Your task to perform on an android device: see tabs open on other devices in the chrome app Image 0: 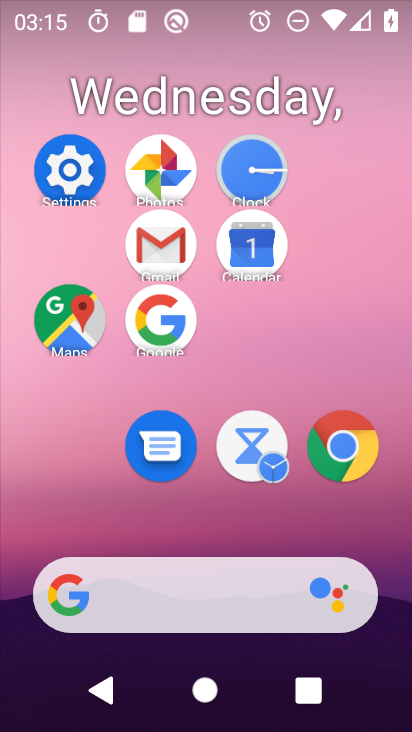
Step 0: click (352, 430)
Your task to perform on an android device: see tabs open on other devices in the chrome app Image 1: 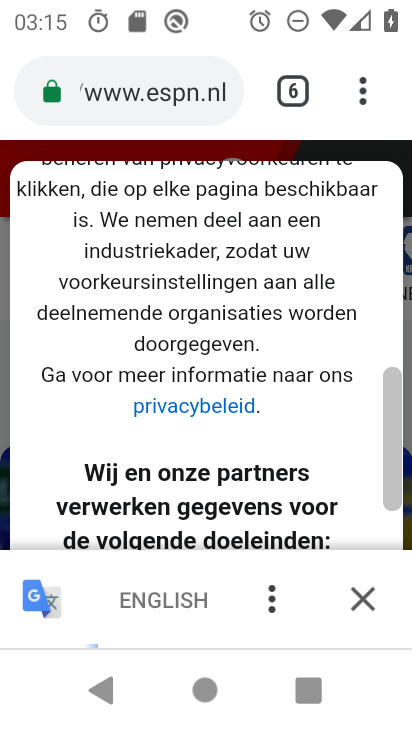
Step 1: click (378, 81)
Your task to perform on an android device: see tabs open on other devices in the chrome app Image 2: 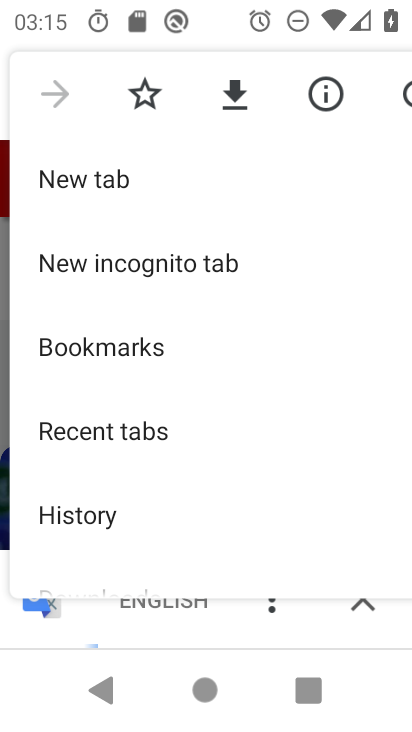
Step 2: click (173, 454)
Your task to perform on an android device: see tabs open on other devices in the chrome app Image 3: 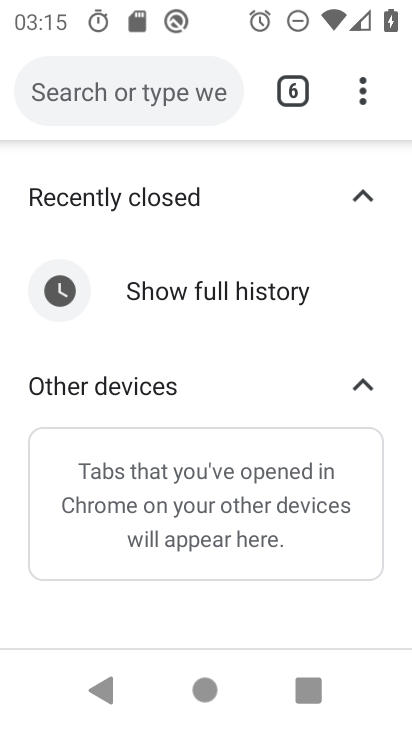
Step 3: click (209, 295)
Your task to perform on an android device: see tabs open on other devices in the chrome app Image 4: 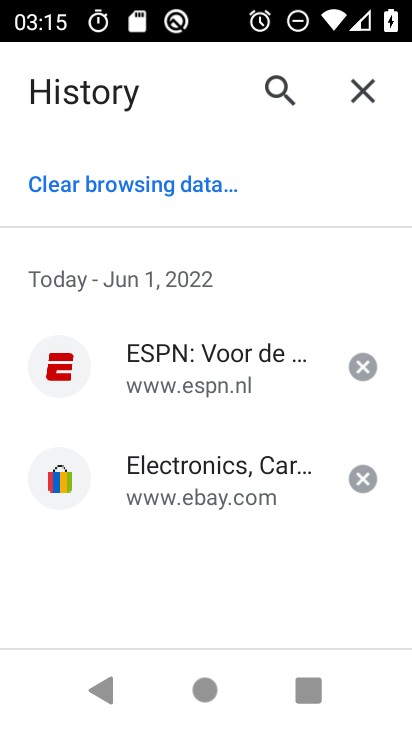
Step 4: task complete